Your task to perform on an android device: open chrome and create a bookmark for the current page Image 0: 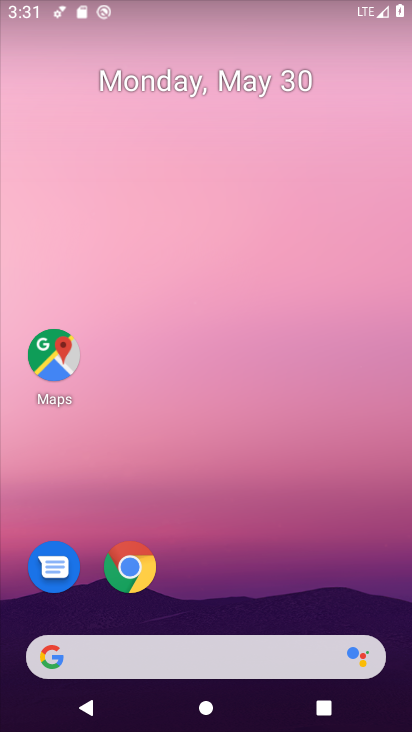
Step 0: drag from (232, 588) to (253, 12)
Your task to perform on an android device: open chrome and create a bookmark for the current page Image 1: 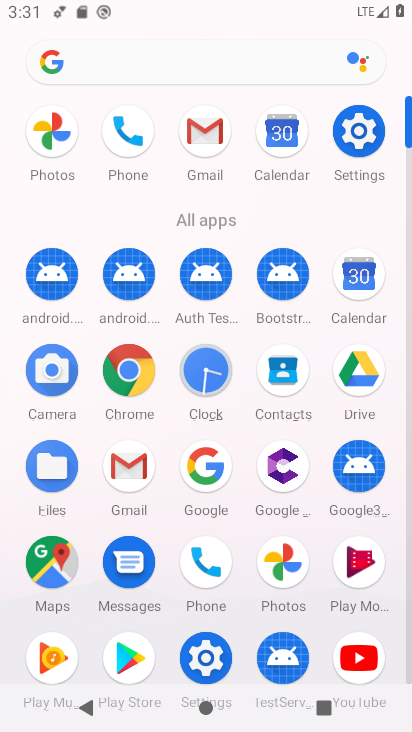
Step 1: click (114, 385)
Your task to perform on an android device: open chrome and create a bookmark for the current page Image 2: 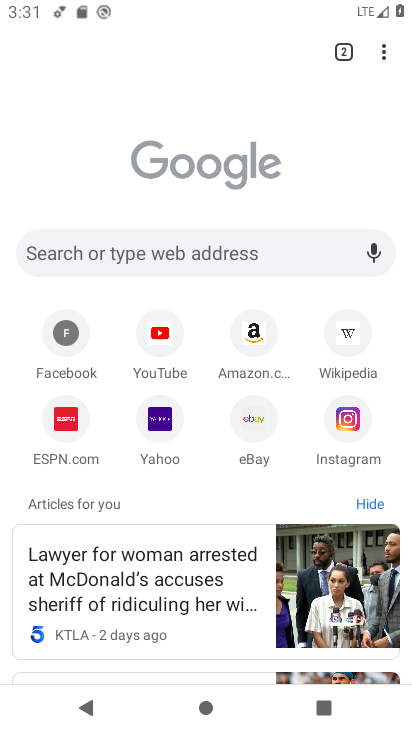
Step 2: click (390, 47)
Your task to perform on an android device: open chrome and create a bookmark for the current page Image 3: 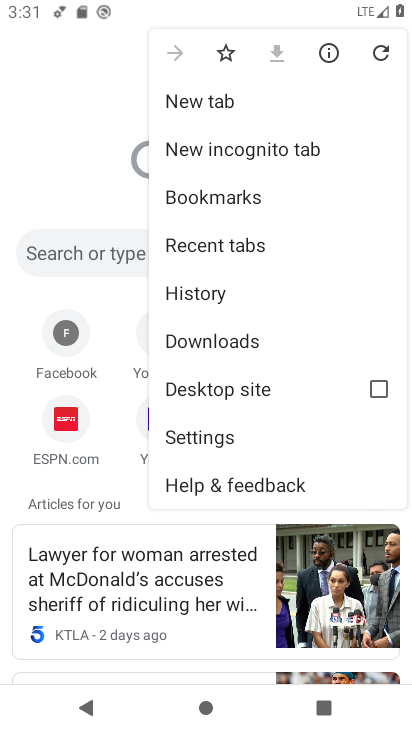
Step 3: click (221, 56)
Your task to perform on an android device: open chrome and create a bookmark for the current page Image 4: 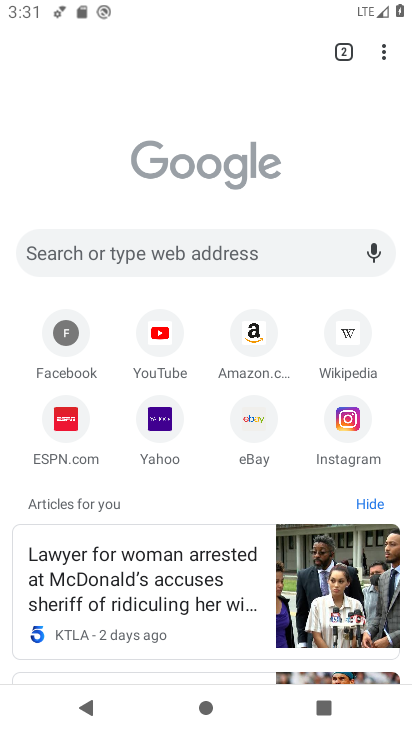
Step 4: task complete